Your task to perform on an android device: open chrome privacy settings Image 0: 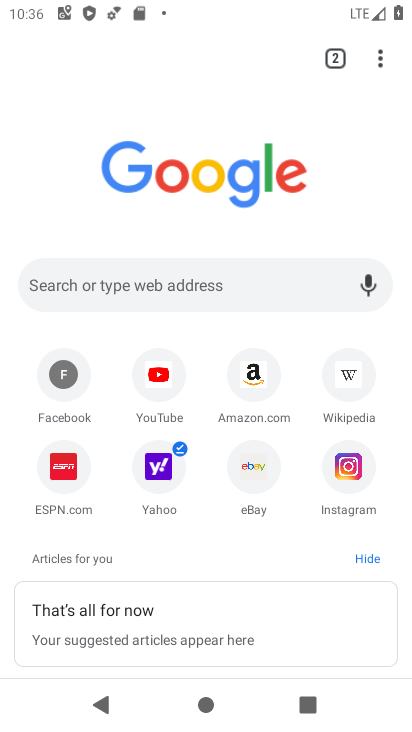
Step 0: drag from (200, 603) to (155, 638)
Your task to perform on an android device: open chrome privacy settings Image 1: 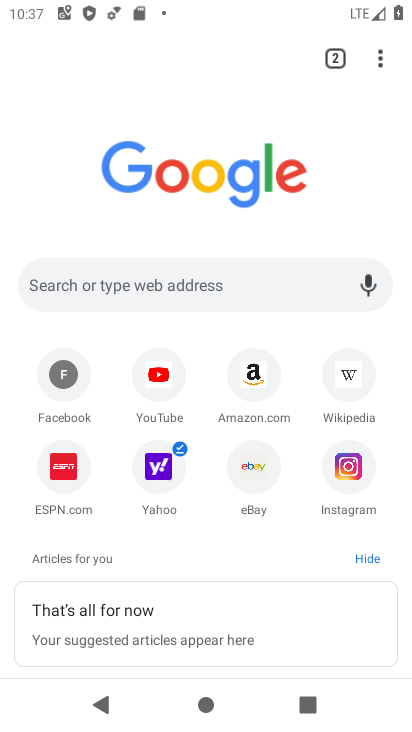
Step 1: click (375, 57)
Your task to perform on an android device: open chrome privacy settings Image 2: 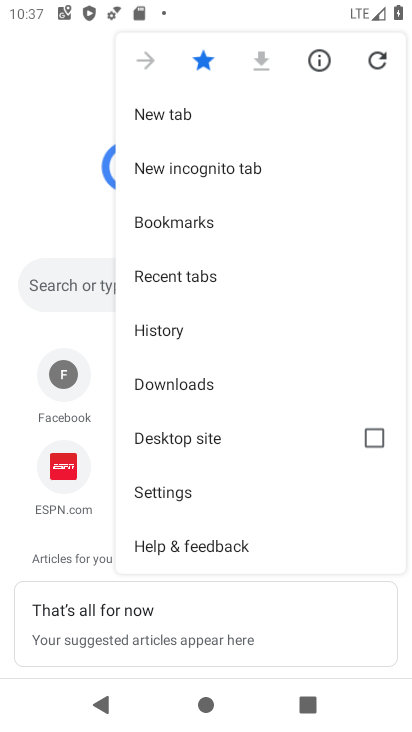
Step 2: click (177, 489)
Your task to perform on an android device: open chrome privacy settings Image 3: 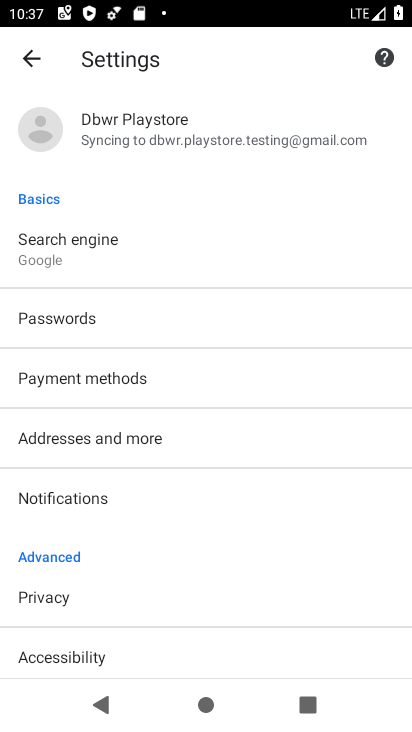
Step 3: click (49, 598)
Your task to perform on an android device: open chrome privacy settings Image 4: 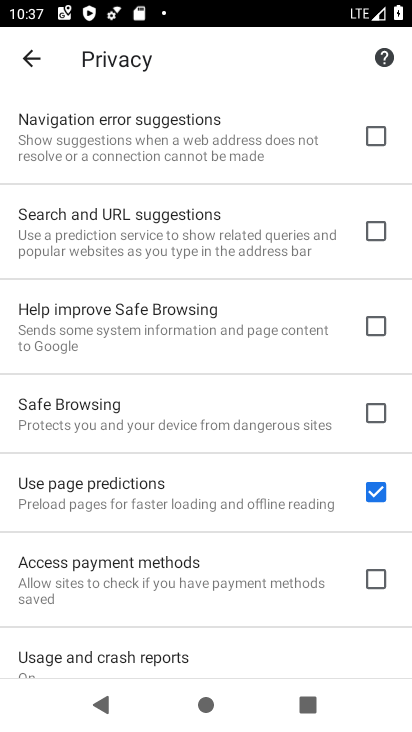
Step 4: task complete